Your task to perform on an android device: Show me productivity apps on the Play Store Image 0: 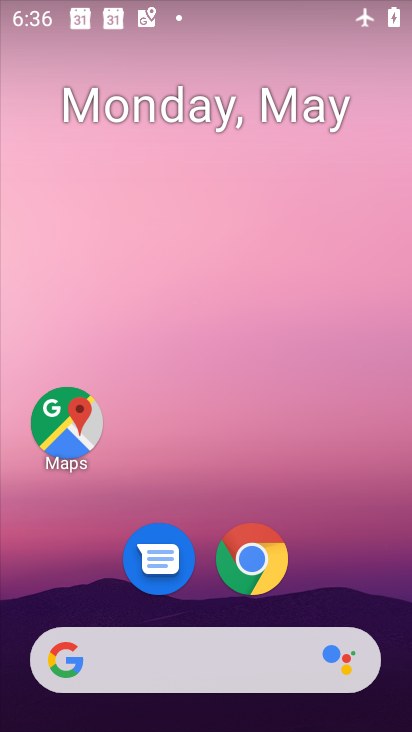
Step 0: drag from (403, 645) to (274, 87)
Your task to perform on an android device: Show me productivity apps on the Play Store Image 1: 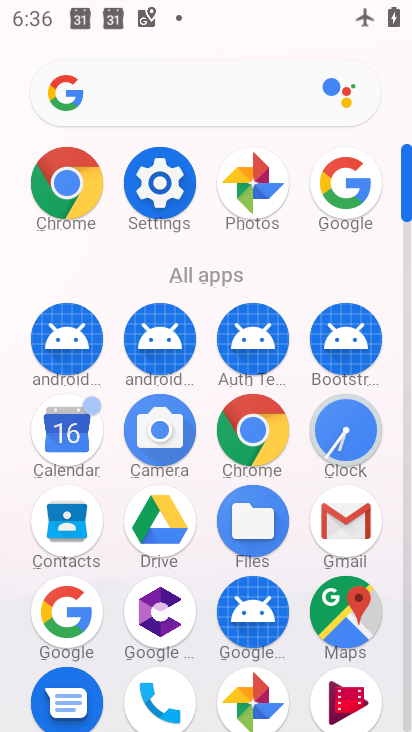
Step 1: drag from (197, 673) to (208, 239)
Your task to perform on an android device: Show me productivity apps on the Play Store Image 2: 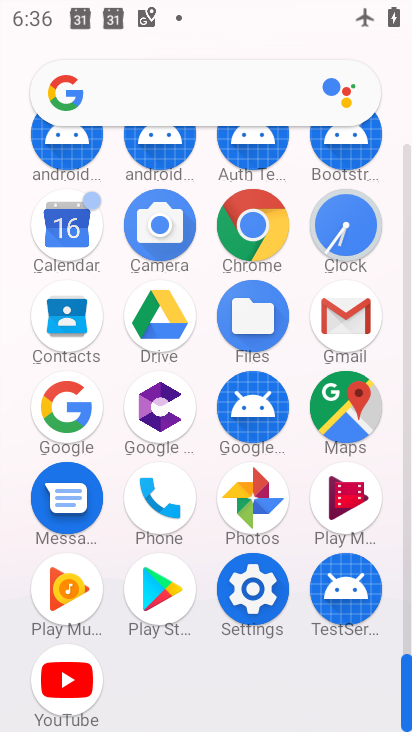
Step 2: click (163, 608)
Your task to perform on an android device: Show me productivity apps on the Play Store Image 3: 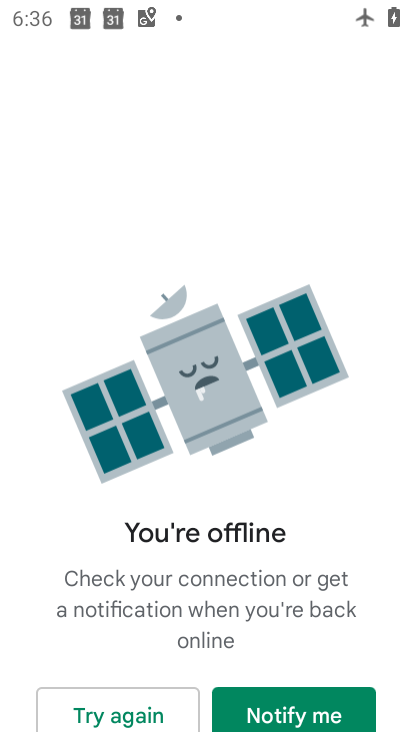
Step 3: task complete